Your task to perform on an android device: Open the web browser Image 0: 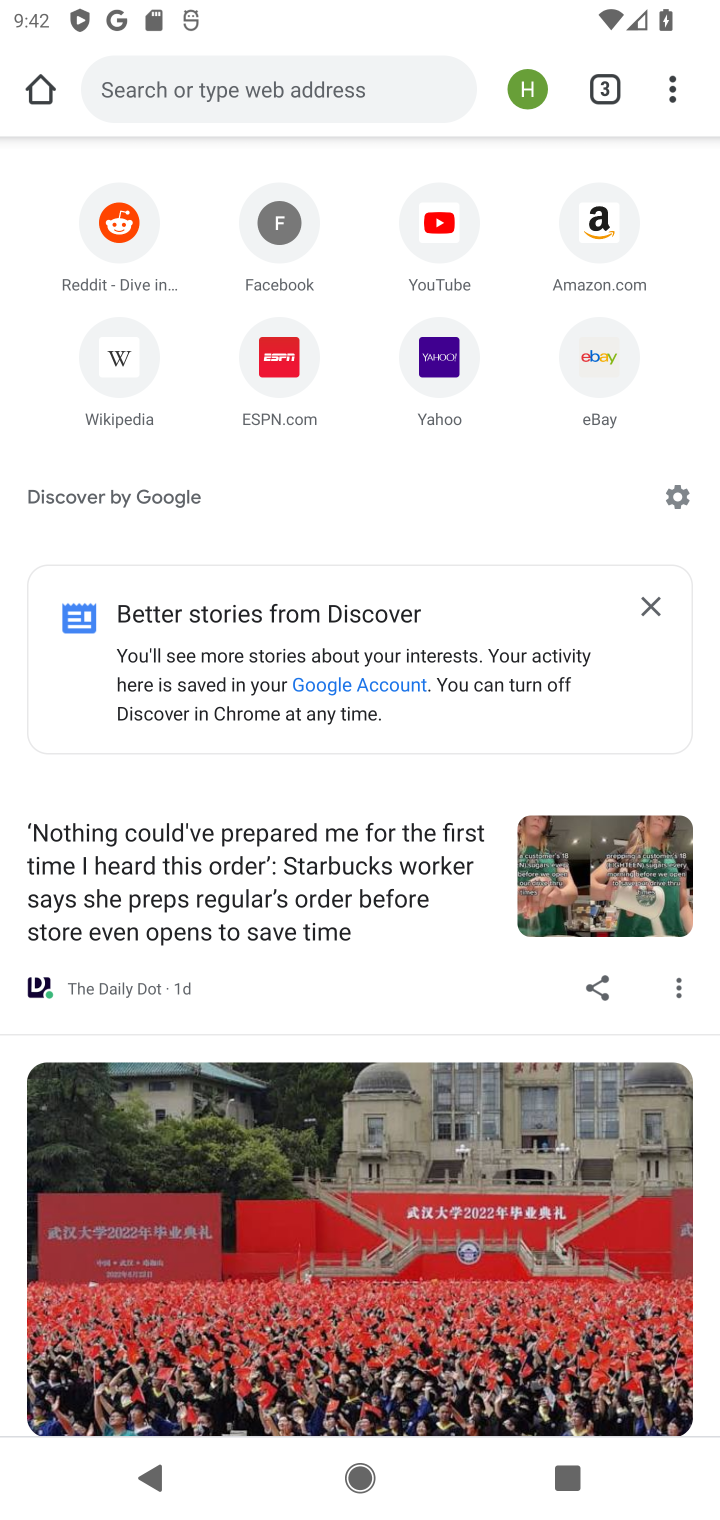
Step 0: task complete